Your task to perform on an android device: Open Wikipedia Image 0: 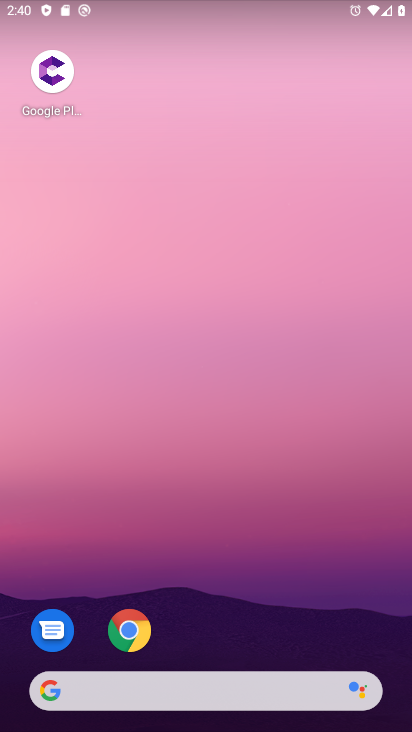
Step 0: drag from (248, 610) to (250, 117)
Your task to perform on an android device: Open Wikipedia Image 1: 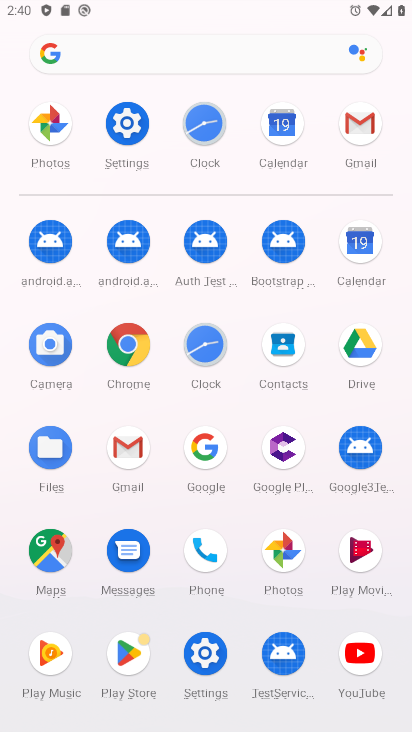
Step 1: click (137, 343)
Your task to perform on an android device: Open Wikipedia Image 2: 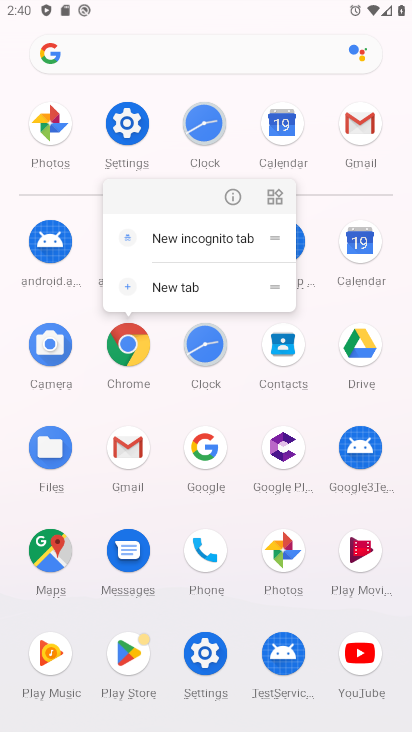
Step 2: click (137, 344)
Your task to perform on an android device: Open Wikipedia Image 3: 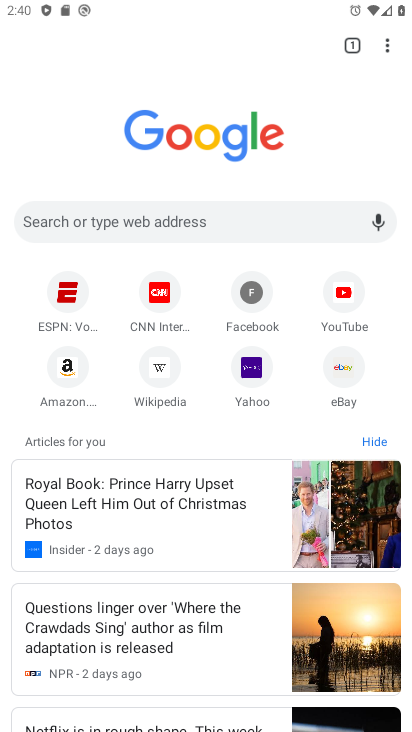
Step 3: click (163, 371)
Your task to perform on an android device: Open Wikipedia Image 4: 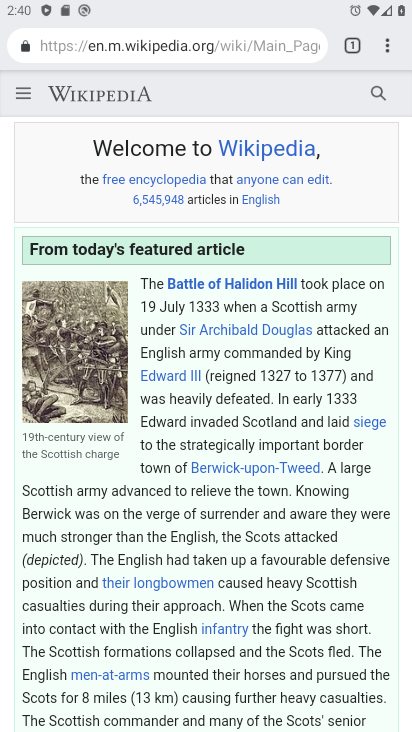
Step 4: task complete